Your task to perform on an android device: Search for seafood restaurants on Google Maps Image 0: 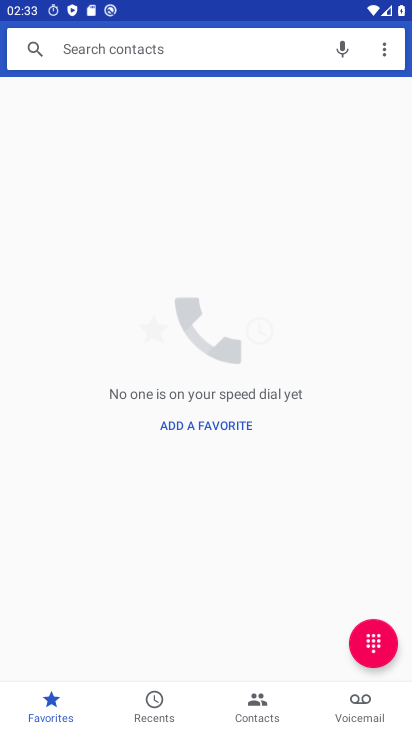
Step 0: click (344, 190)
Your task to perform on an android device: Search for seafood restaurants on Google Maps Image 1: 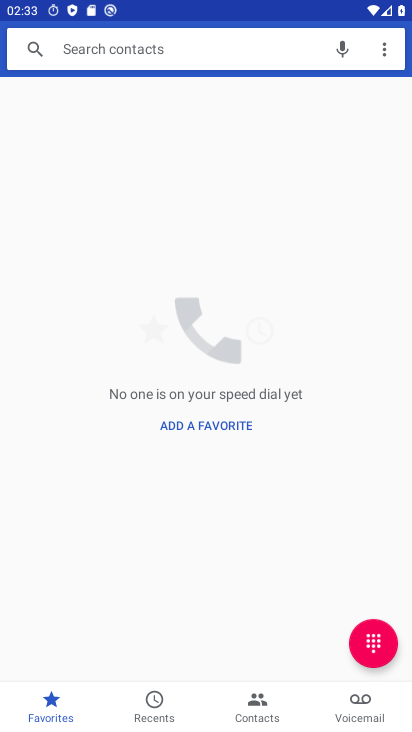
Step 1: press home button
Your task to perform on an android device: Search for seafood restaurants on Google Maps Image 2: 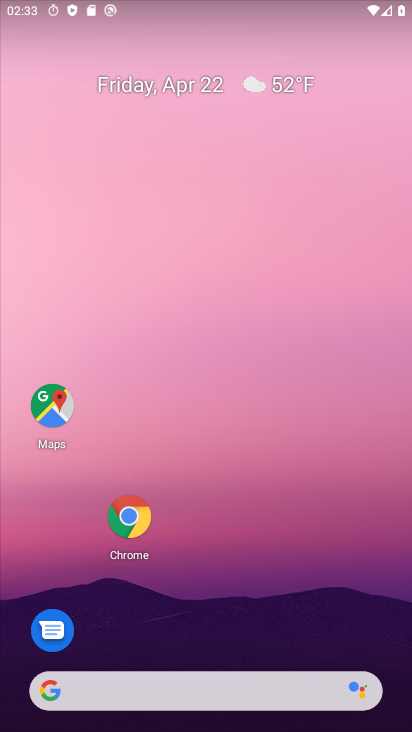
Step 2: click (382, 201)
Your task to perform on an android device: Search for seafood restaurants on Google Maps Image 3: 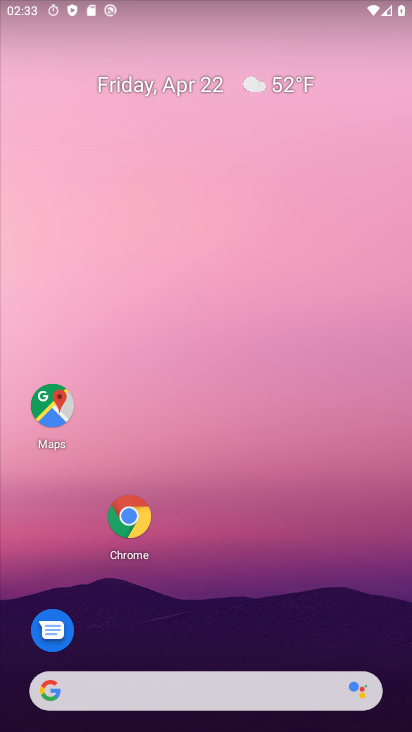
Step 3: click (38, 404)
Your task to perform on an android device: Search for seafood restaurants on Google Maps Image 4: 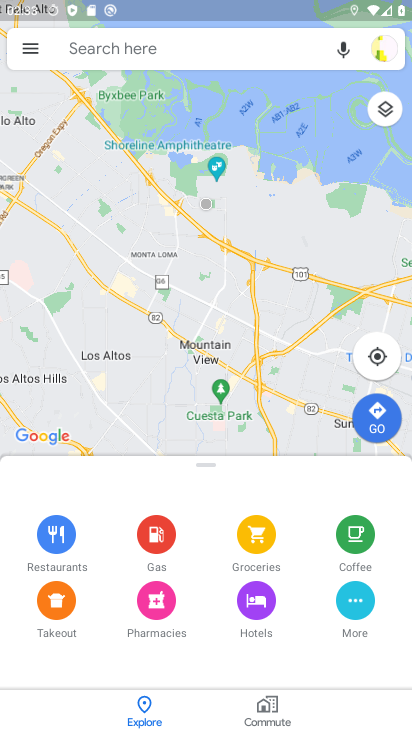
Step 4: click (199, 37)
Your task to perform on an android device: Search for seafood restaurants on Google Maps Image 5: 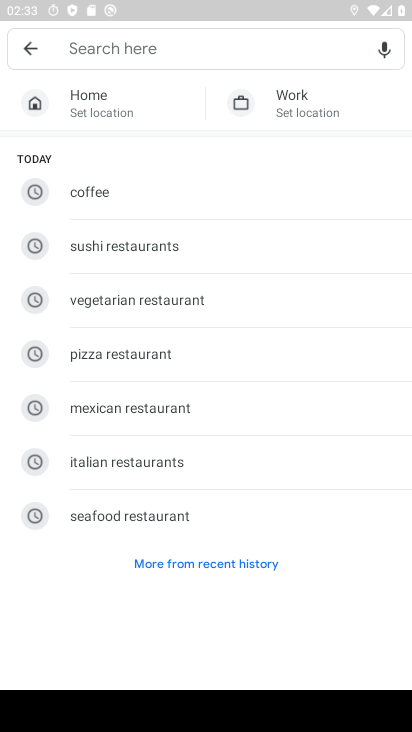
Step 5: type "seafood restaurants"
Your task to perform on an android device: Search for seafood restaurants on Google Maps Image 6: 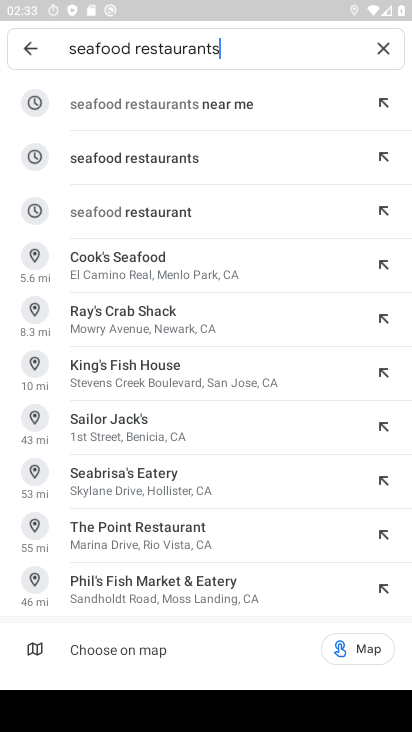
Step 6: click (163, 150)
Your task to perform on an android device: Search for seafood restaurants on Google Maps Image 7: 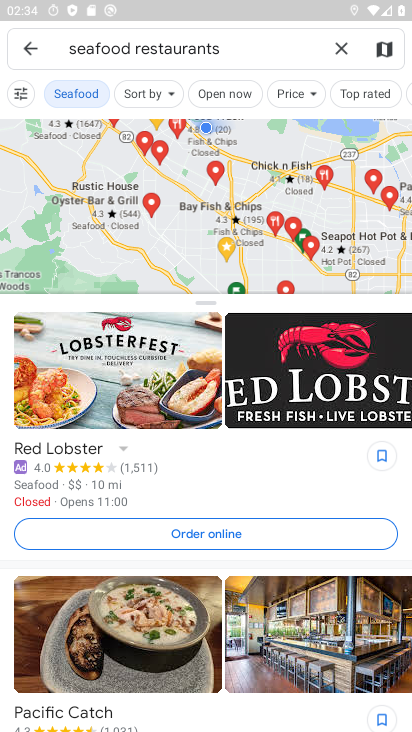
Step 7: task complete